Your task to perform on an android device: Open sound settings Image 0: 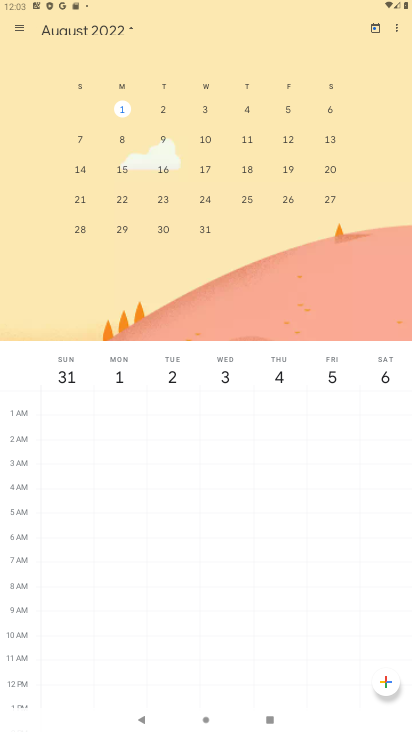
Step 0: press home button
Your task to perform on an android device: Open sound settings Image 1: 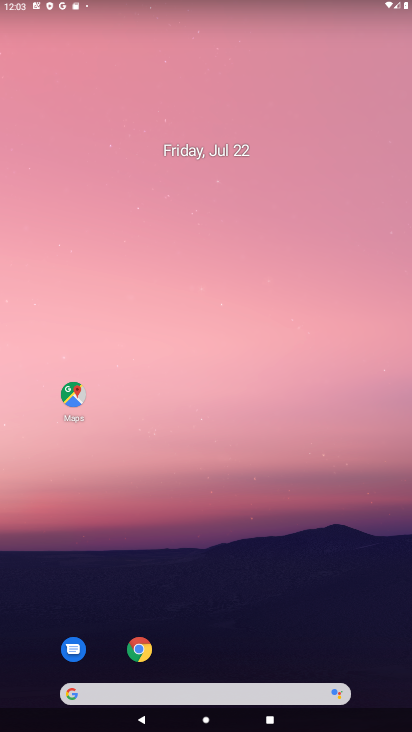
Step 1: drag from (226, 604) to (189, 219)
Your task to perform on an android device: Open sound settings Image 2: 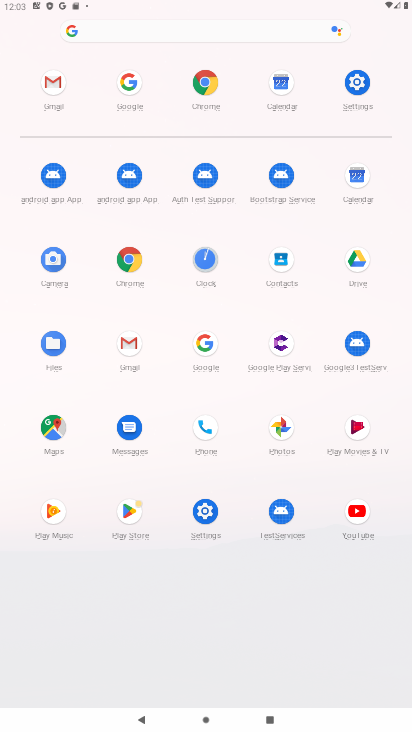
Step 2: click (210, 510)
Your task to perform on an android device: Open sound settings Image 3: 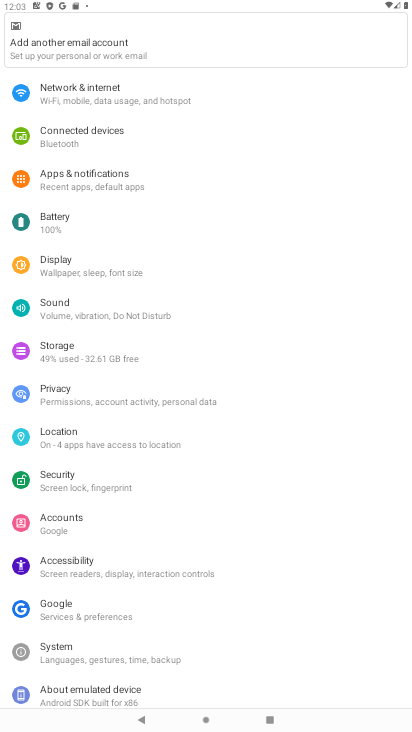
Step 3: click (60, 308)
Your task to perform on an android device: Open sound settings Image 4: 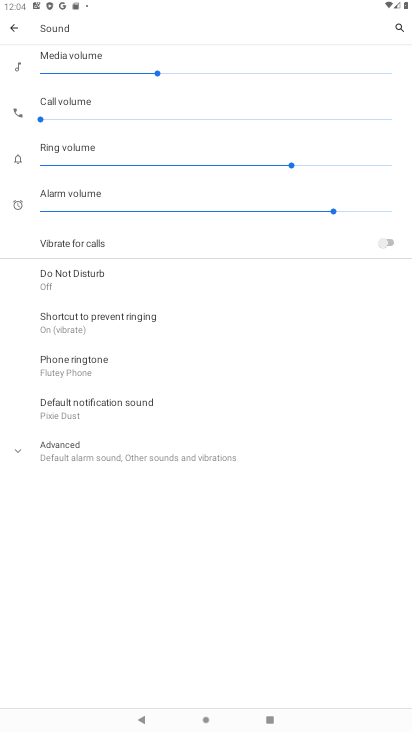
Step 4: task complete